Your task to perform on an android device: open a bookmark in the chrome app Image 0: 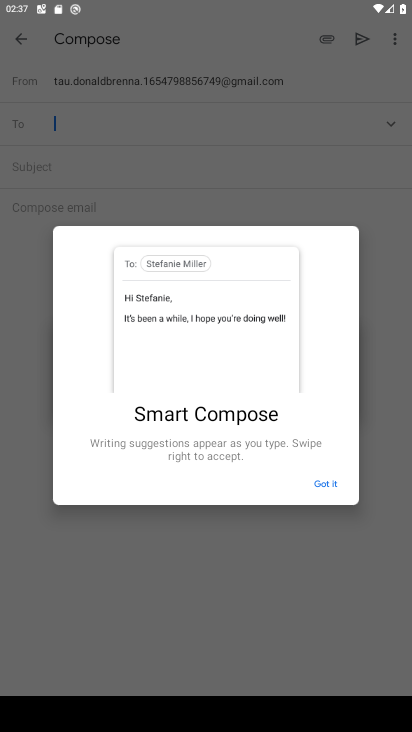
Step 0: press home button
Your task to perform on an android device: open a bookmark in the chrome app Image 1: 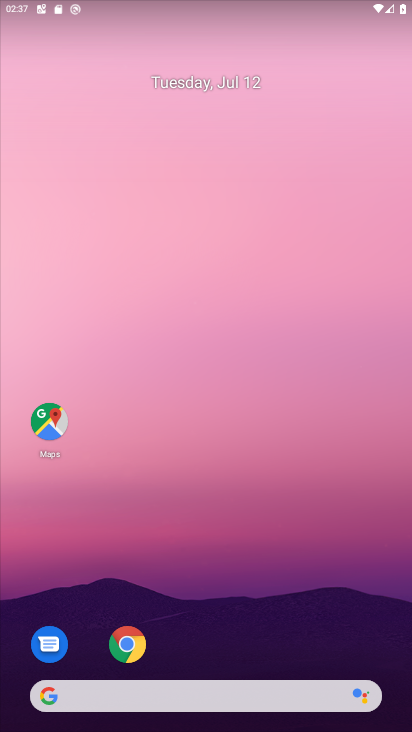
Step 1: click (145, 643)
Your task to perform on an android device: open a bookmark in the chrome app Image 2: 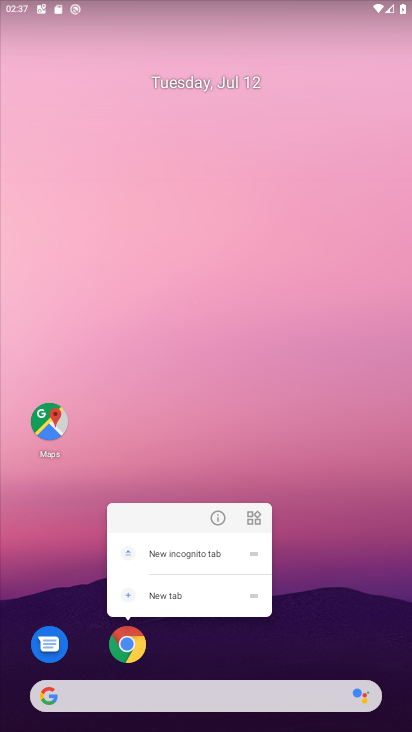
Step 2: click (133, 643)
Your task to perform on an android device: open a bookmark in the chrome app Image 3: 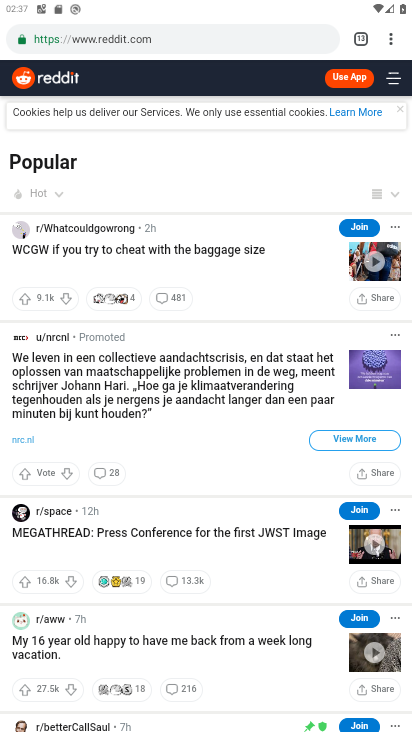
Step 3: click (391, 37)
Your task to perform on an android device: open a bookmark in the chrome app Image 4: 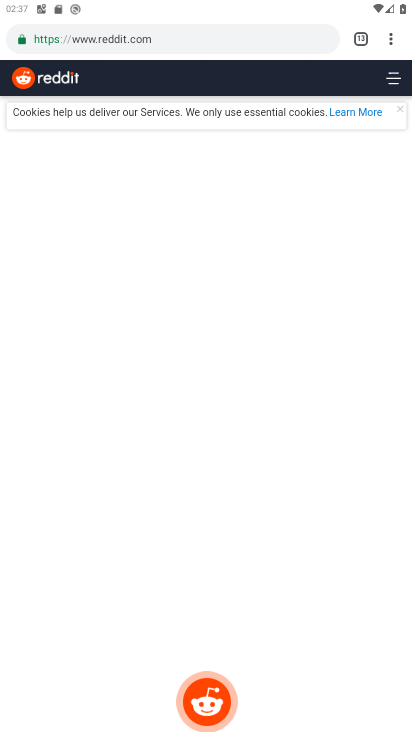
Step 4: task complete